Your task to perform on an android device: Open location settings Image 0: 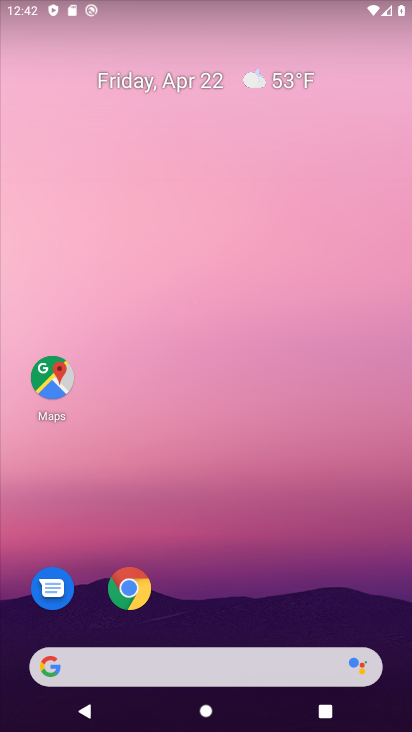
Step 0: drag from (213, 554) to (315, 113)
Your task to perform on an android device: Open location settings Image 1: 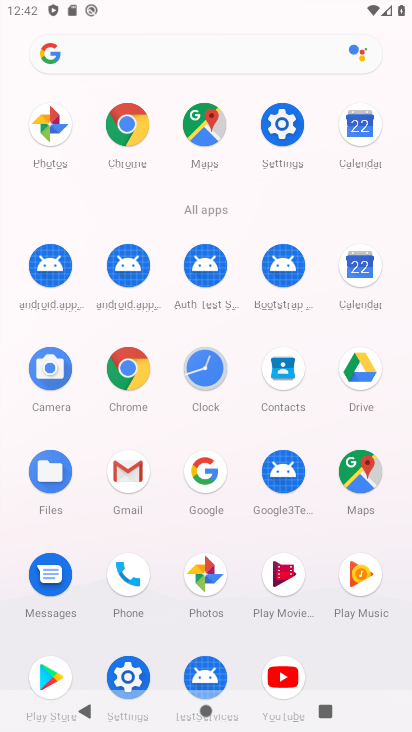
Step 1: click (282, 119)
Your task to perform on an android device: Open location settings Image 2: 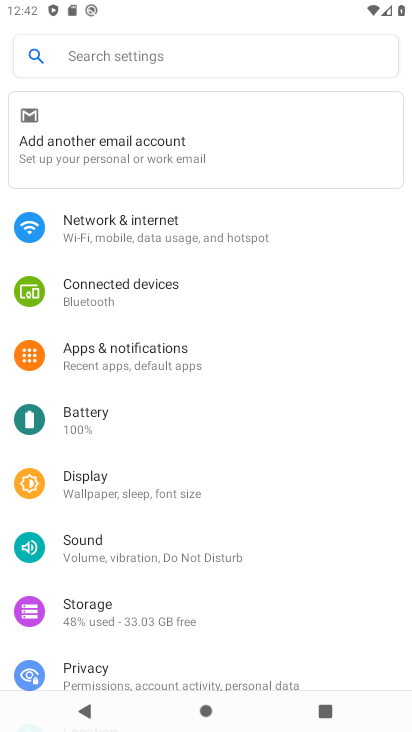
Step 2: drag from (153, 642) to (242, 184)
Your task to perform on an android device: Open location settings Image 3: 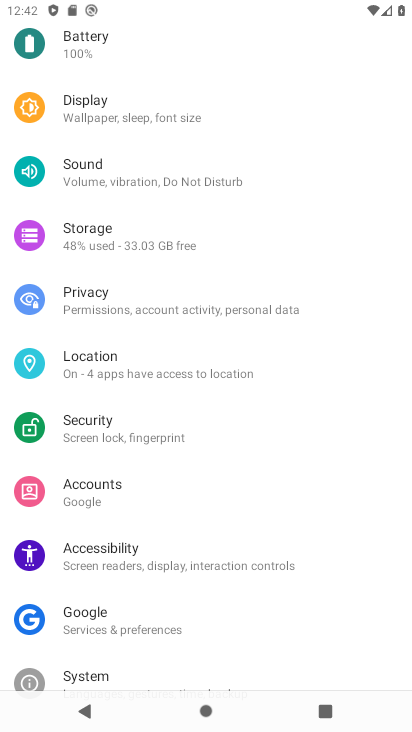
Step 3: click (114, 364)
Your task to perform on an android device: Open location settings Image 4: 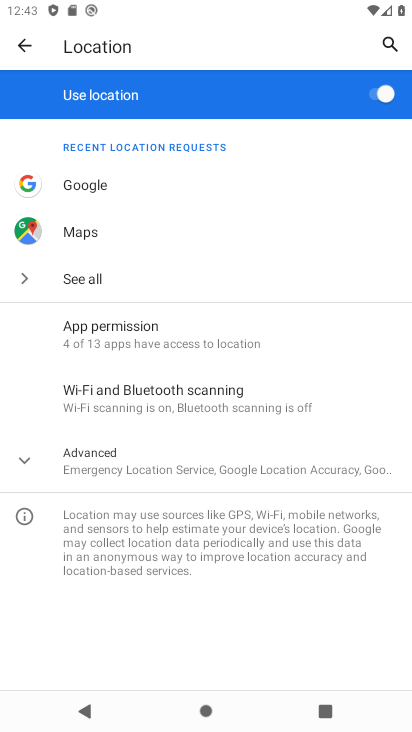
Step 4: task complete